Your task to perform on an android device: What's on my calendar today? Image 0: 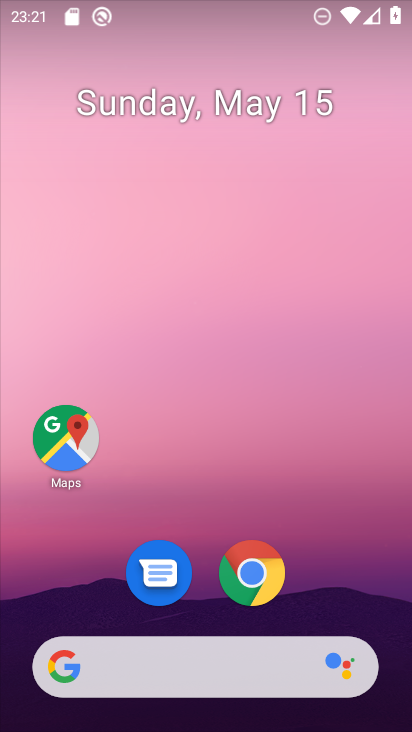
Step 0: press home button
Your task to perform on an android device: What's on my calendar today? Image 1: 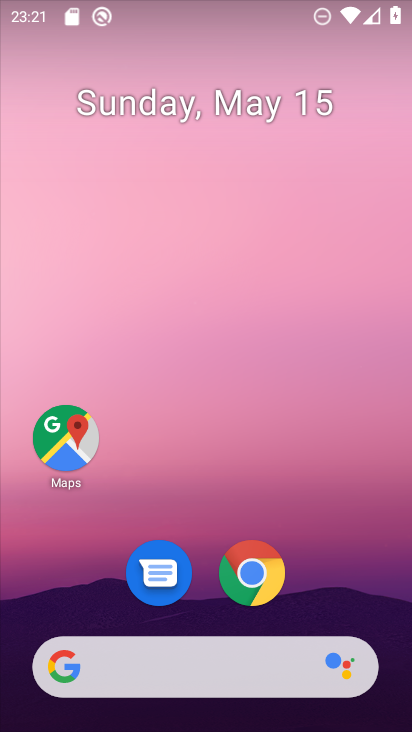
Step 1: drag from (339, 568) to (345, 6)
Your task to perform on an android device: What's on my calendar today? Image 2: 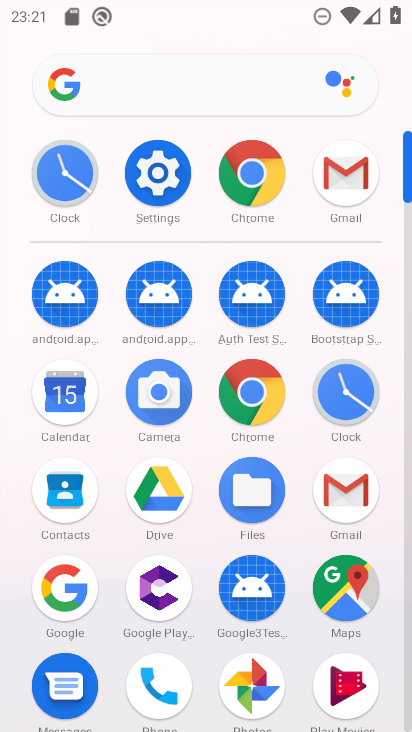
Step 2: click (81, 374)
Your task to perform on an android device: What's on my calendar today? Image 3: 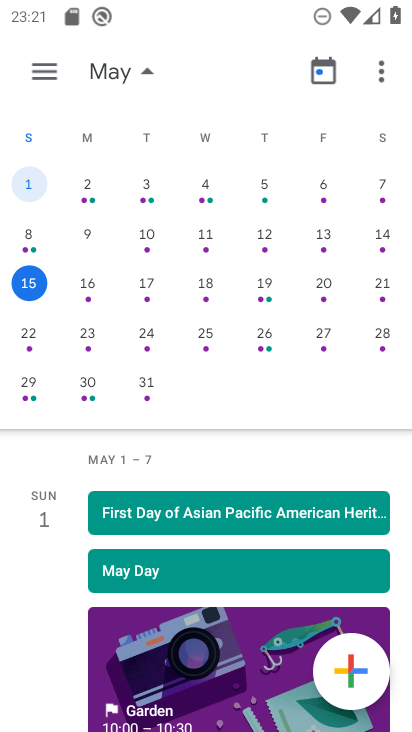
Step 3: click (126, 72)
Your task to perform on an android device: What's on my calendar today? Image 4: 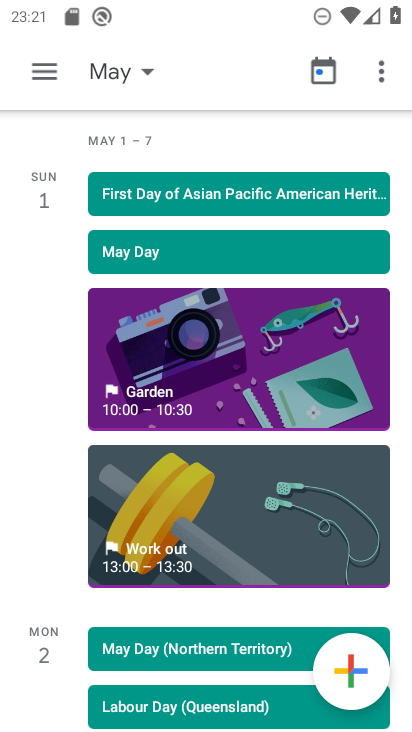
Step 4: task complete